Your task to perform on an android device: install app "Google Find My Device" Image 0: 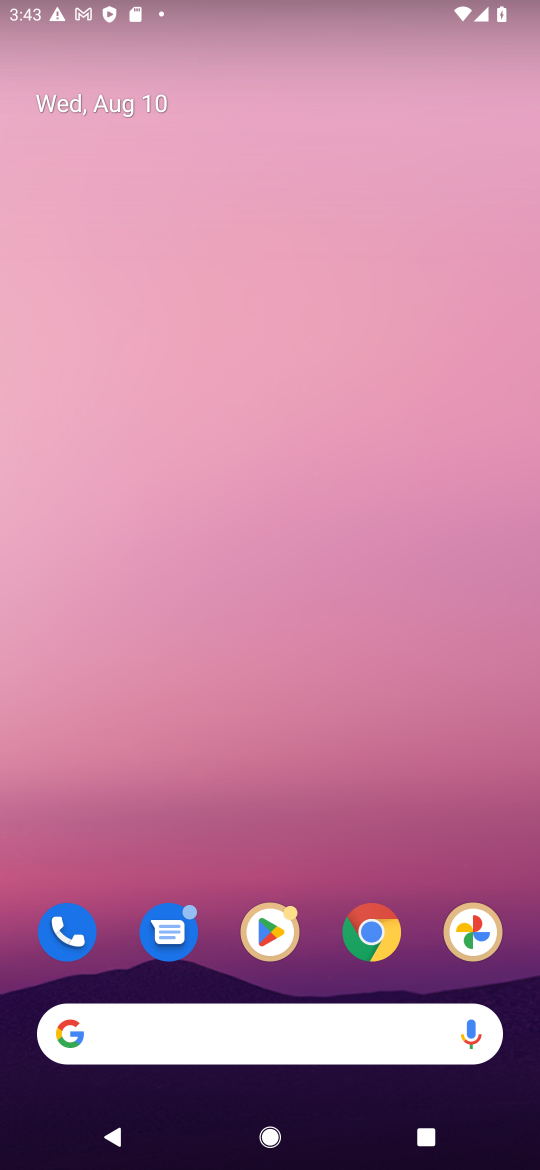
Step 0: drag from (370, 691) to (12, 1059)
Your task to perform on an android device: install app "Google Find My Device" Image 1: 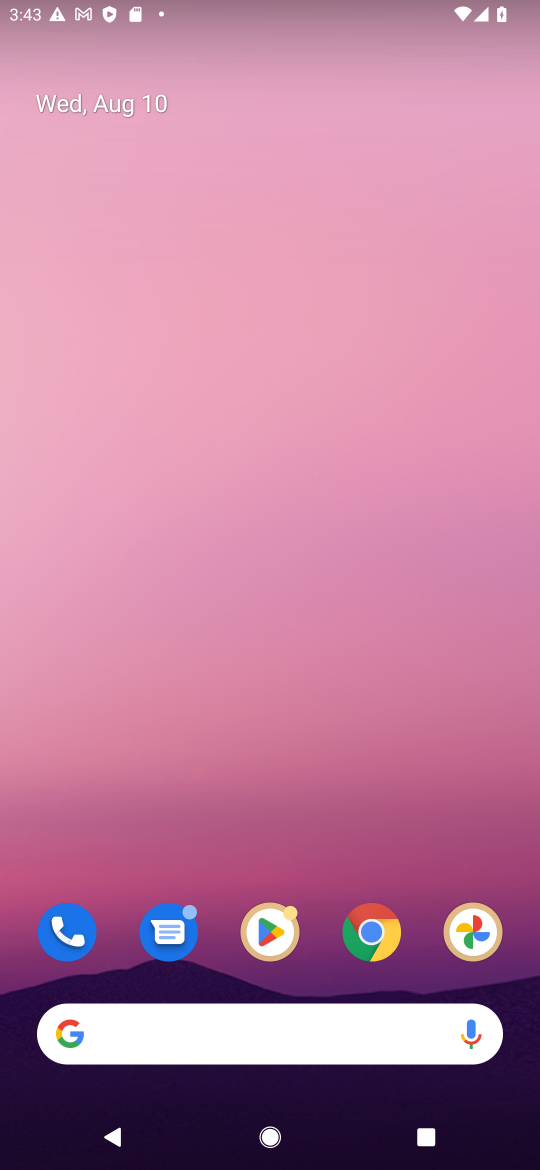
Step 1: drag from (280, 935) to (376, 261)
Your task to perform on an android device: install app "Google Find My Device" Image 2: 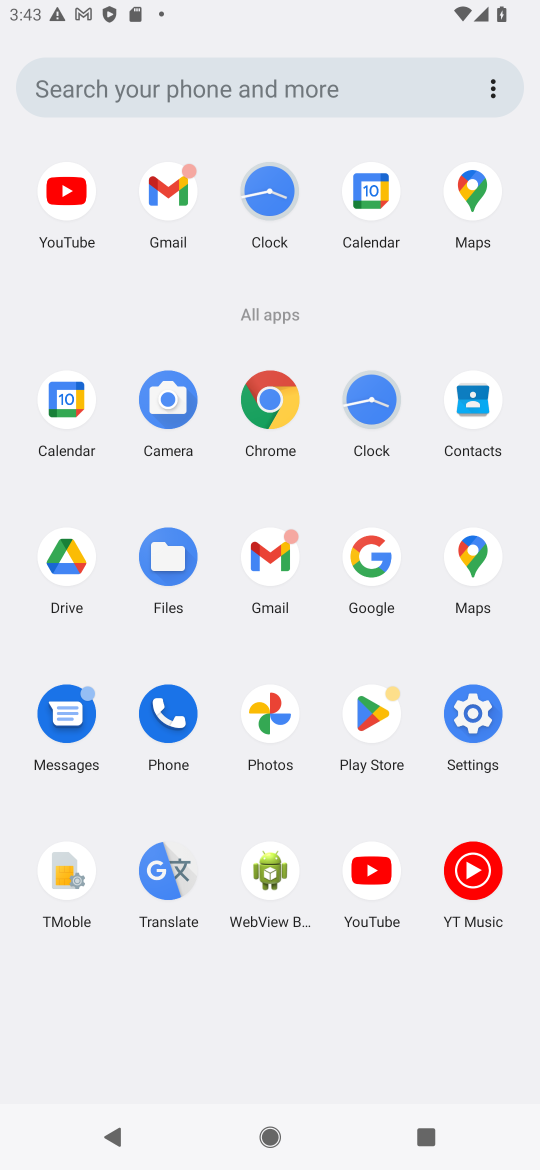
Step 2: click (383, 710)
Your task to perform on an android device: install app "Google Find My Device" Image 3: 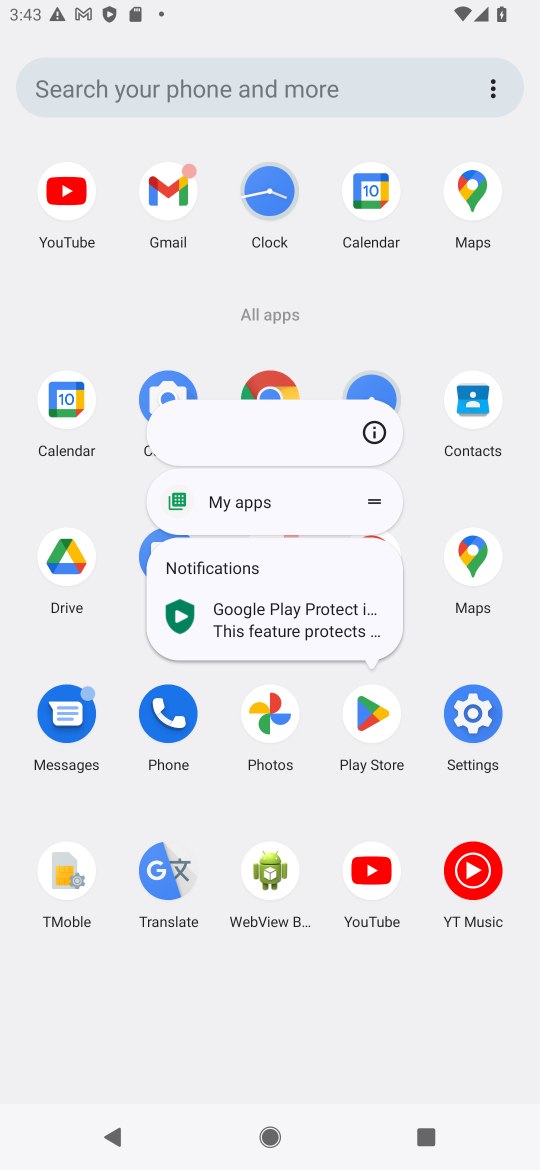
Step 3: click (383, 708)
Your task to perform on an android device: install app "Google Find My Device" Image 4: 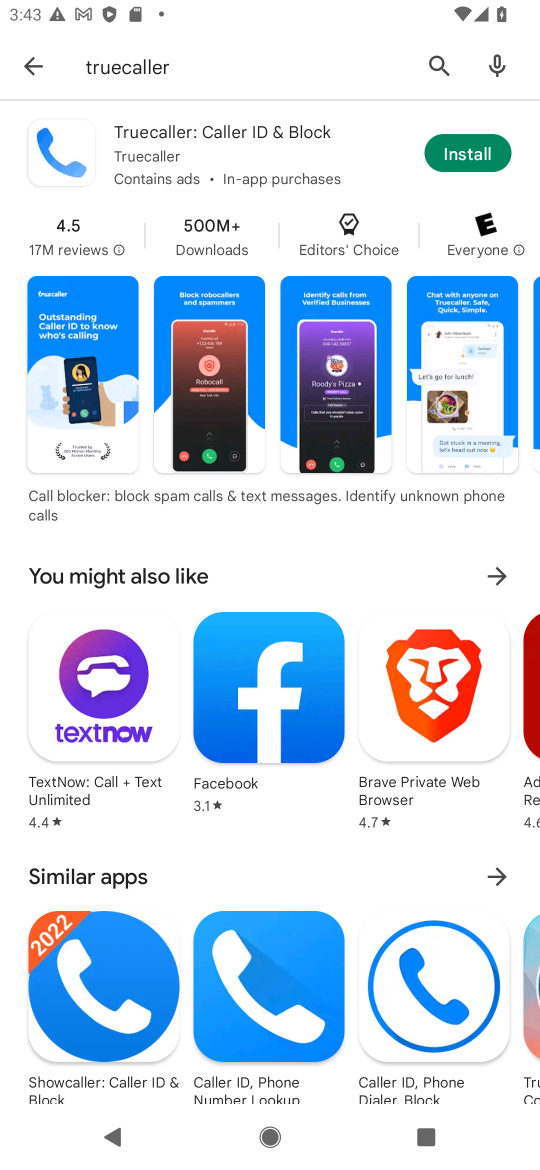
Step 4: click (23, 63)
Your task to perform on an android device: install app "Google Find My Device" Image 5: 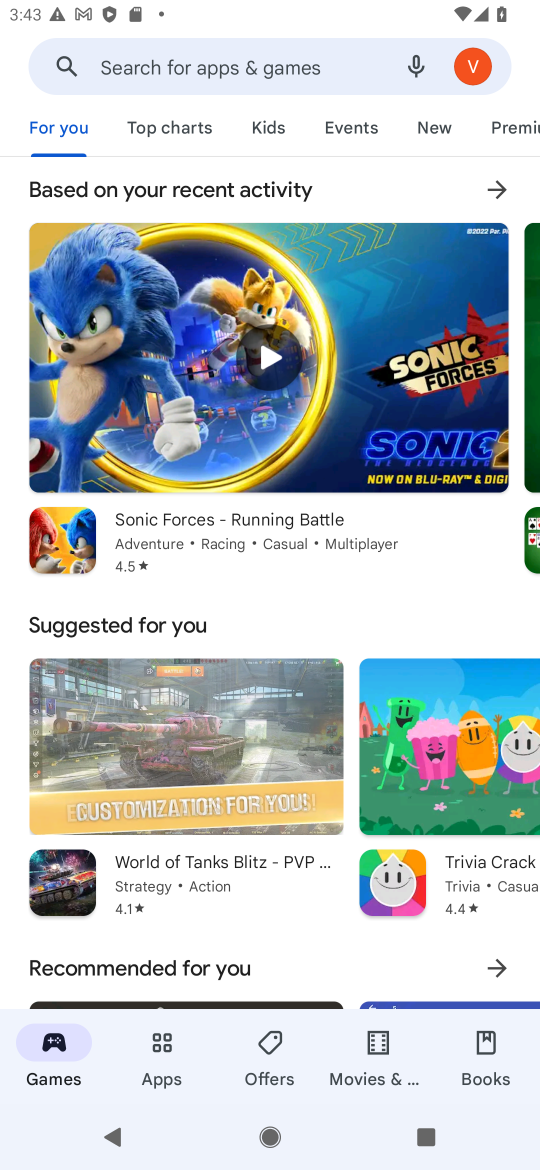
Step 5: click (313, 79)
Your task to perform on an android device: install app "Google Find My Device" Image 6: 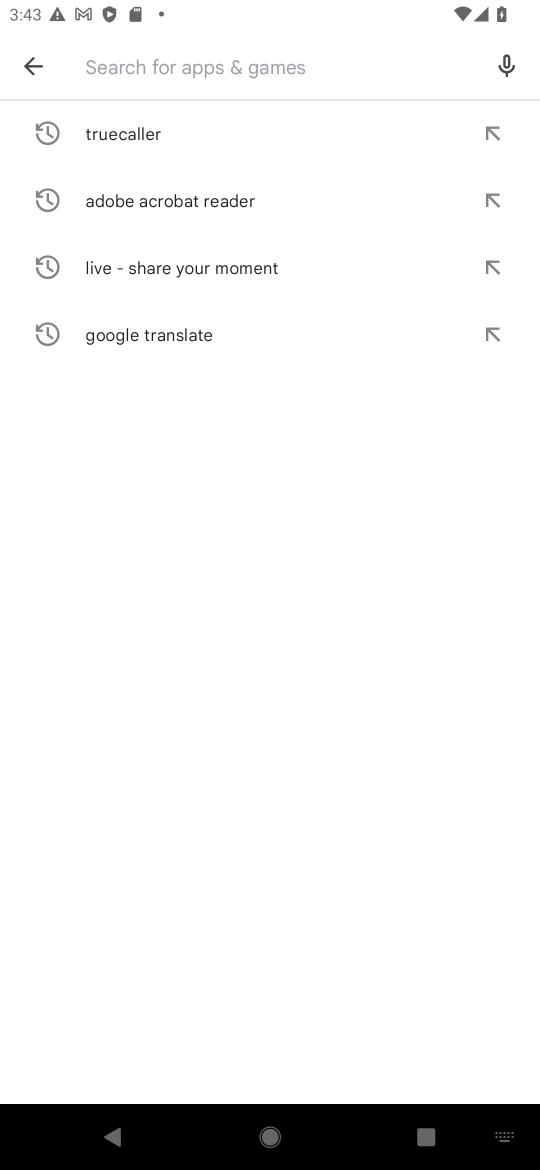
Step 6: type "Google Find My Device"
Your task to perform on an android device: install app "Google Find My Device" Image 7: 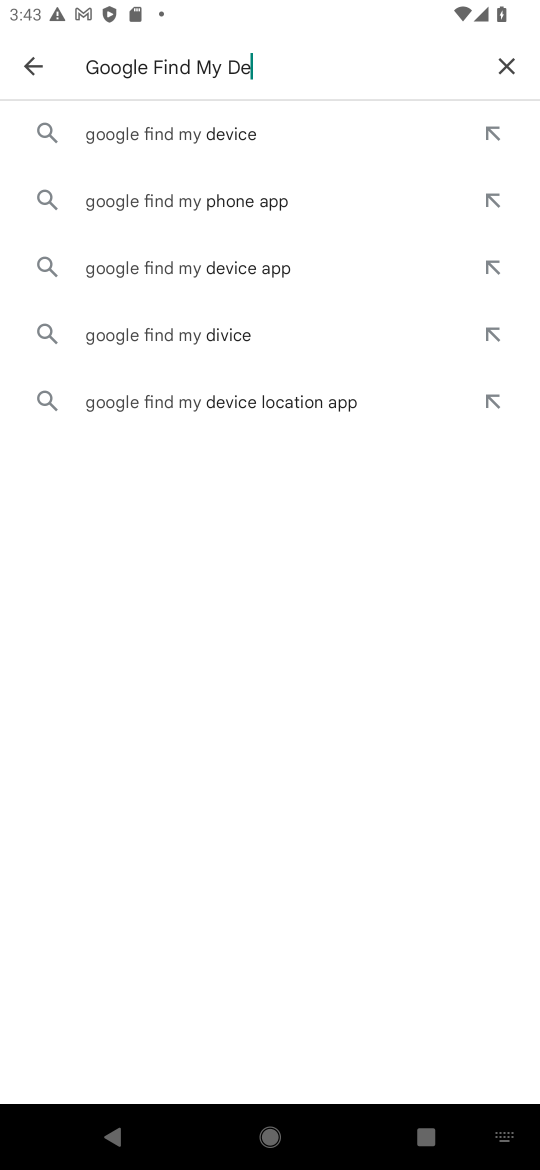
Step 7: press enter
Your task to perform on an android device: install app "Google Find My Device" Image 8: 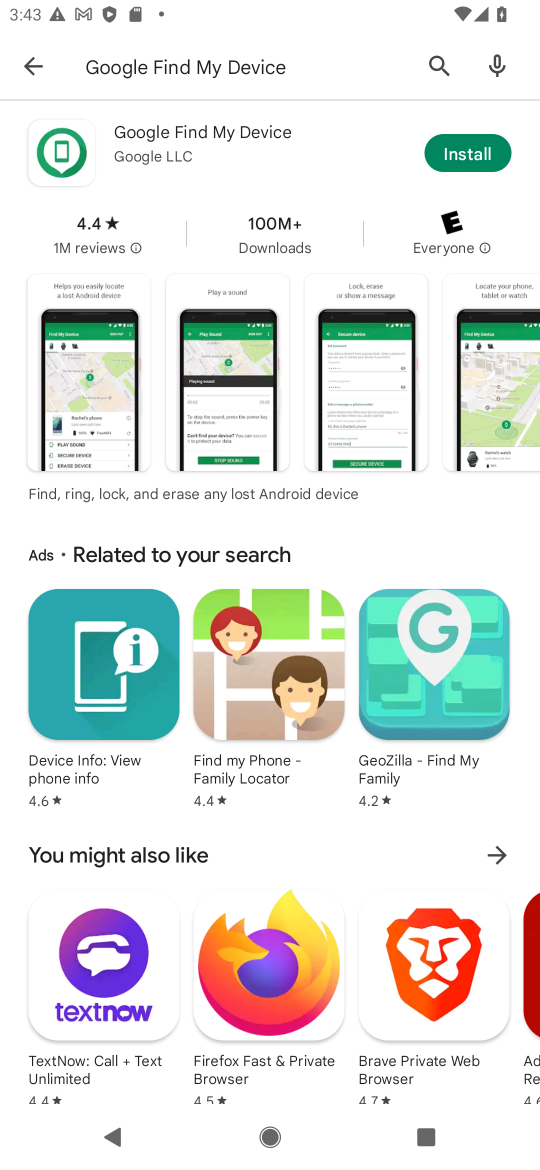
Step 8: click (458, 151)
Your task to perform on an android device: install app "Google Find My Device" Image 9: 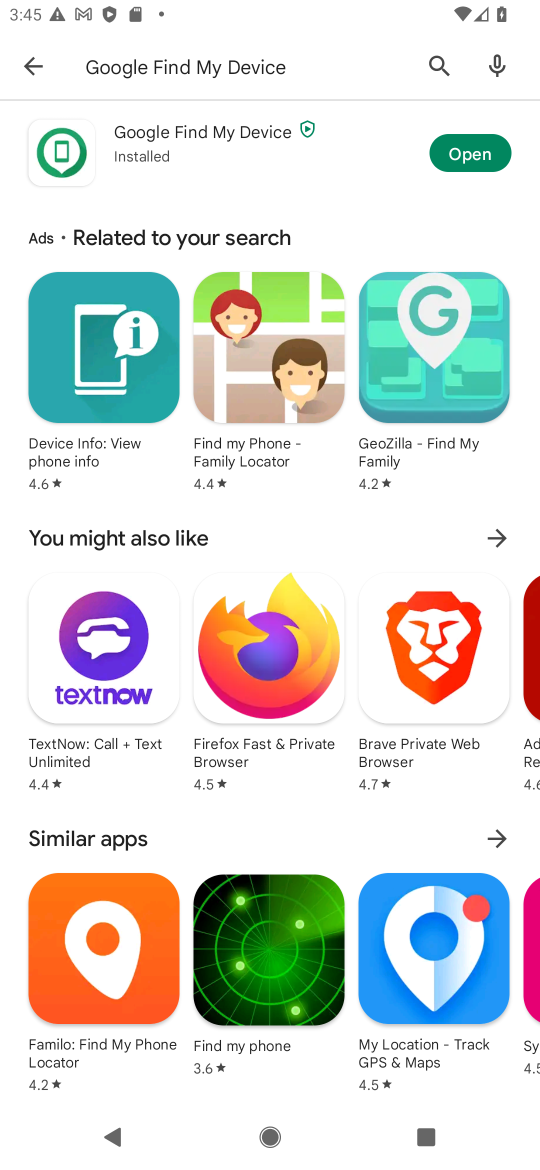
Step 9: task complete